Your task to perform on an android device: set the stopwatch Image 0: 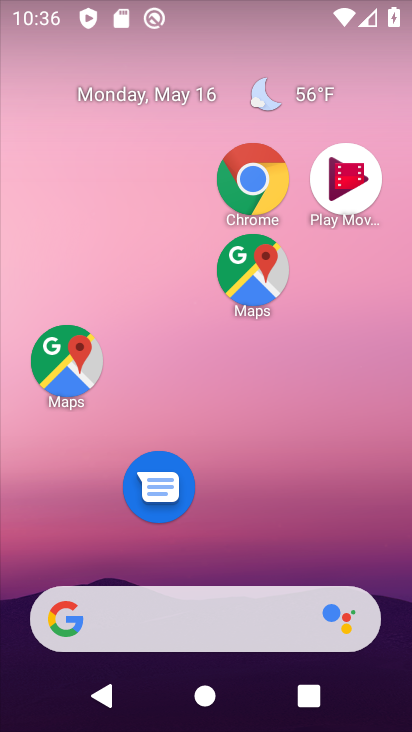
Step 0: drag from (286, 440) to (222, 2)
Your task to perform on an android device: set the stopwatch Image 1: 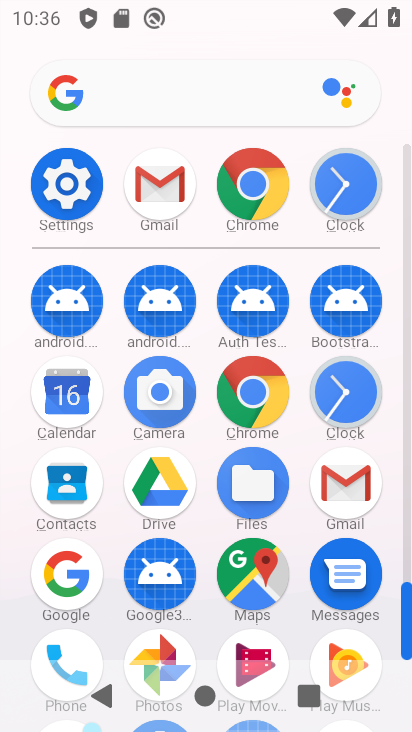
Step 1: click (353, 399)
Your task to perform on an android device: set the stopwatch Image 2: 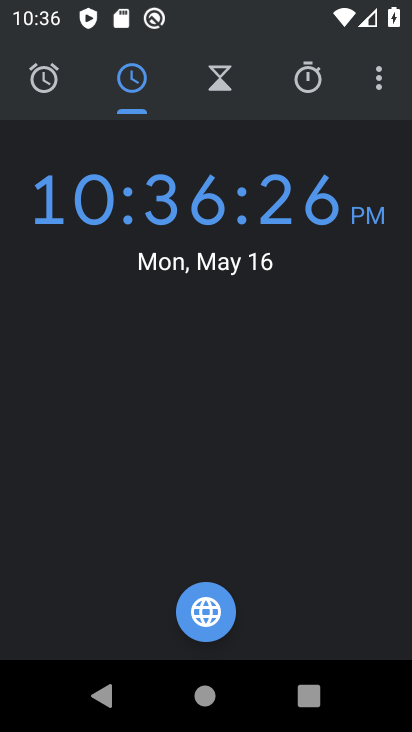
Step 2: click (308, 93)
Your task to perform on an android device: set the stopwatch Image 3: 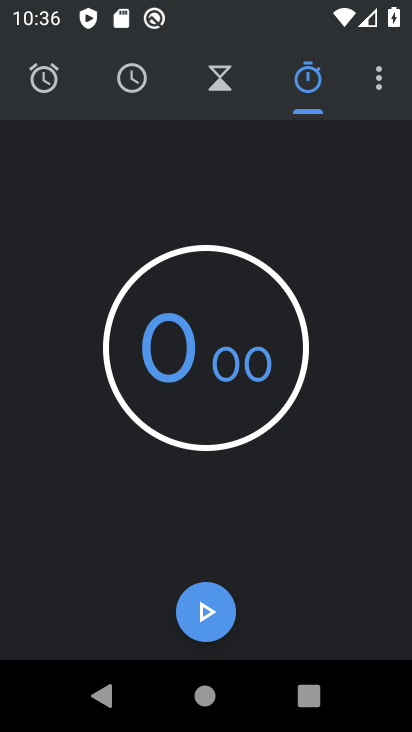
Step 3: click (189, 631)
Your task to perform on an android device: set the stopwatch Image 4: 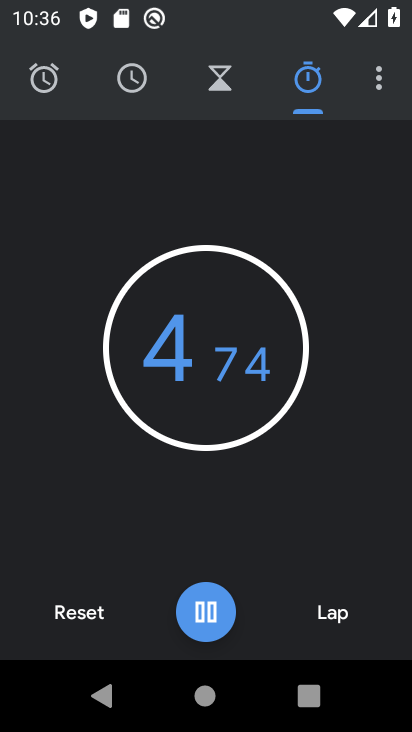
Step 4: click (207, 611)
Your task to perform on an android device: set the stopwatch Image 5: 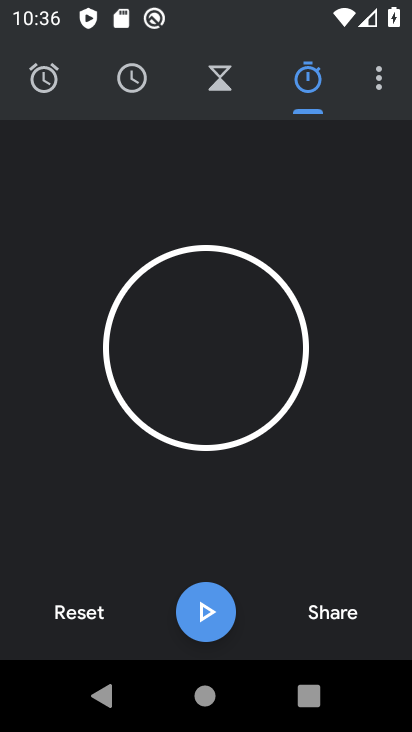
Step 5: task complete